Your task to perform on an android device: Clear the cart on target.com. Add "usb-c" to the cart on target.com Image 0: 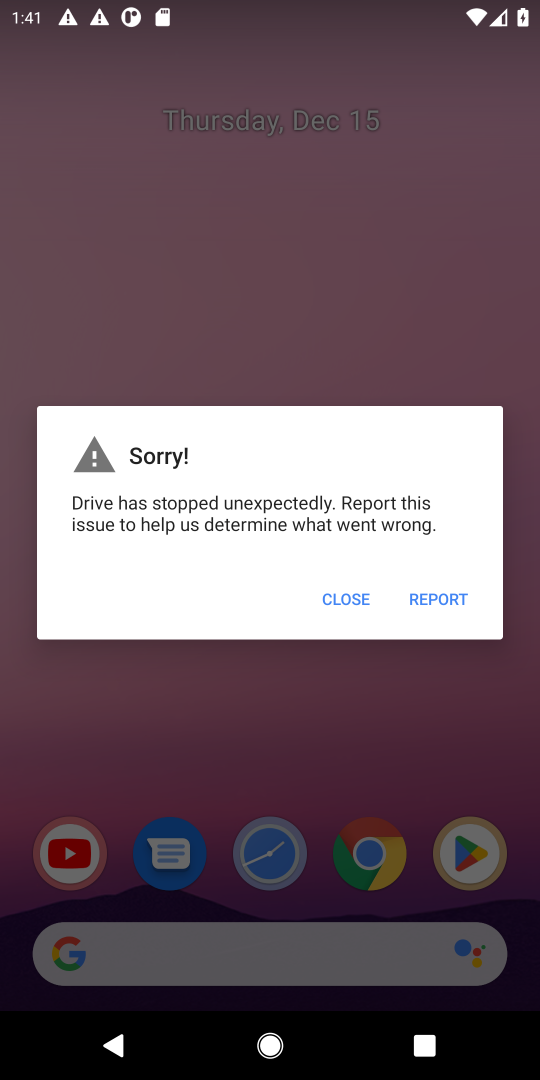
Step 0: press home button
Your task to perform on an android device: Clear the cart on target.com. Add "usb-c" to the cart on target.com Image 1: 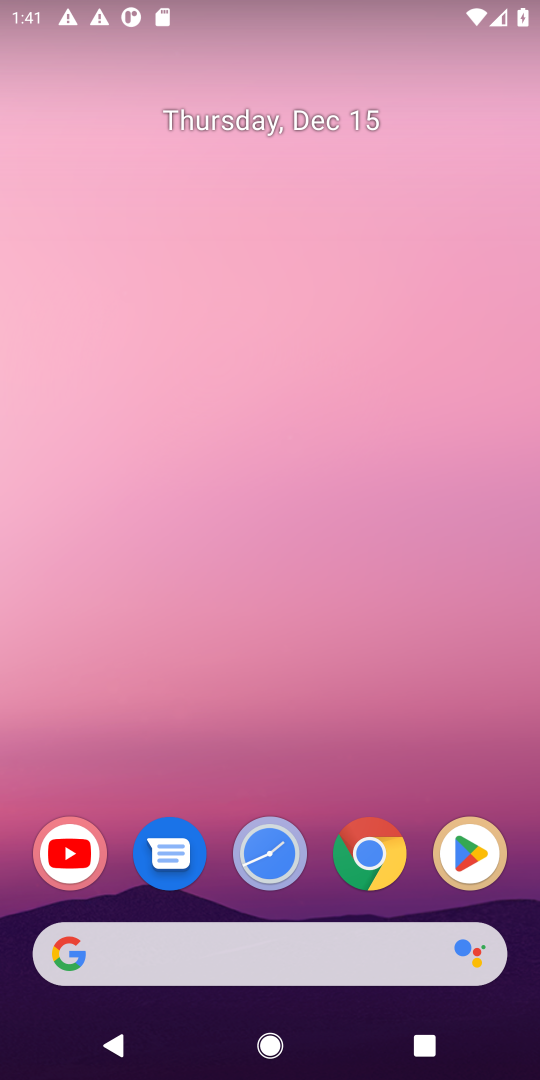
Step 1: drag from (229, 939) to (206, 186)
Your task to perform on an android device: Clear the cart on target.com. Add "usb-c" to the cart on target.com Image 2: 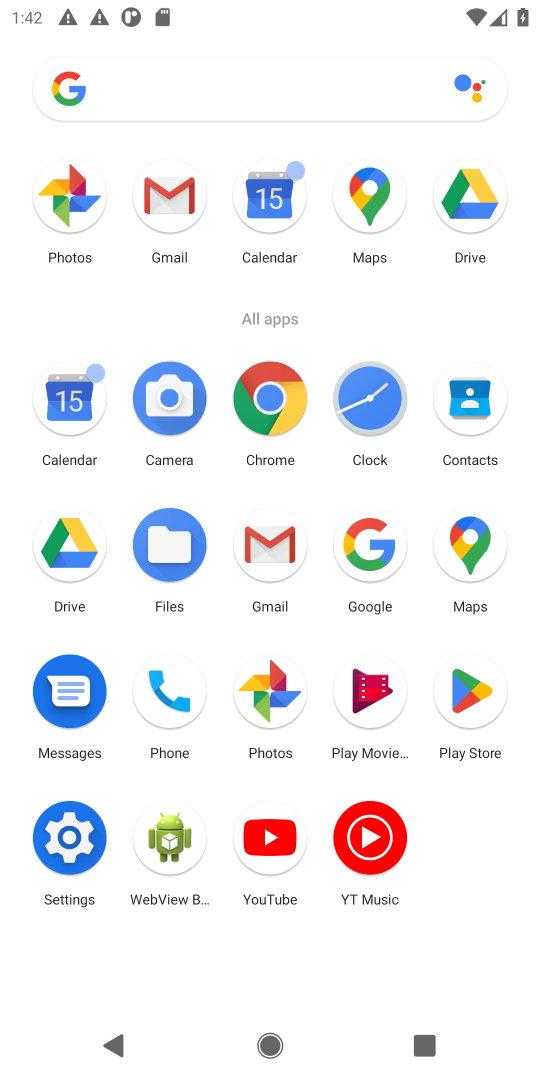
Step 2: click (362, 534)
Your task to perform on an android device: Clear the cart on target.com. Add "usb-c" to the cart on target.com Image 3: 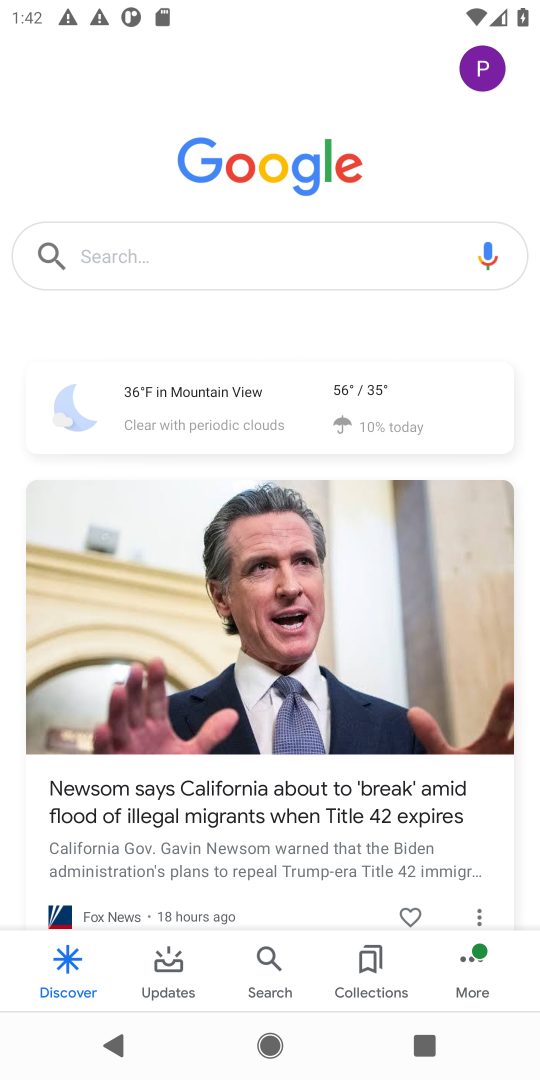
Step 3: click (105, 263)
Your task to perform on an android device: Clear the cart on target.com. Add "usb-c" to the cart on target.com Image 4: 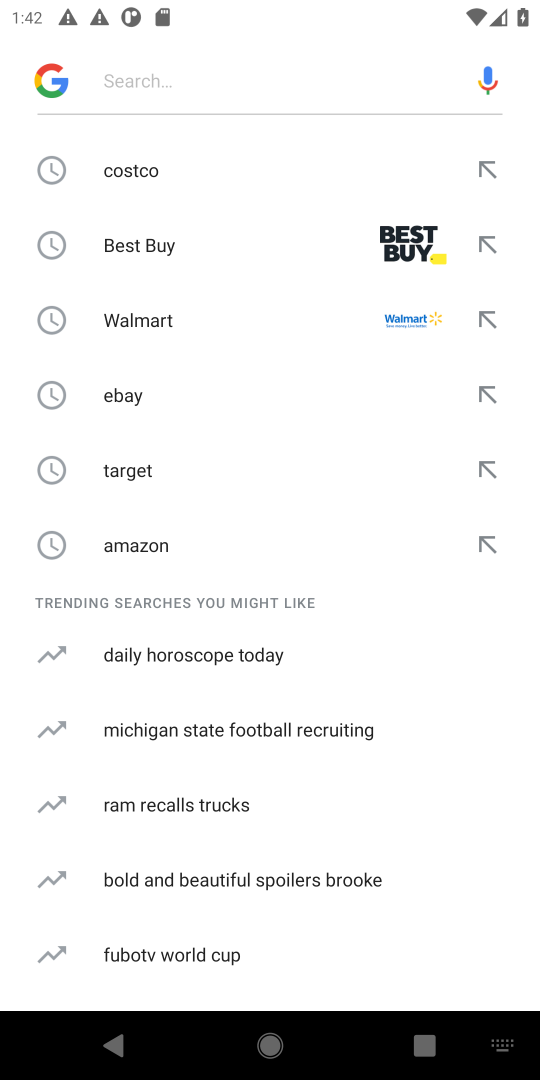
Step 4: click (117, 468)
Your task to perform on an android device: Clear the cart on target.com. Add "usb-c" to the cart on target.com Image 5: 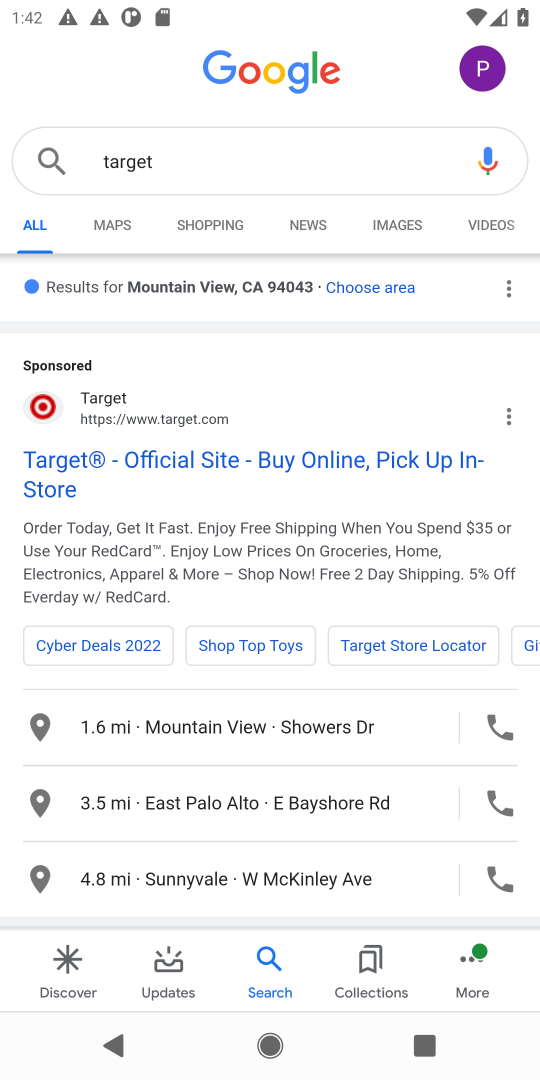
Step 5: click (114, 460)
Your task to perform on an android device: Clear the cart on target.com. Add "usb-c" to the cart on target.com Image 6: 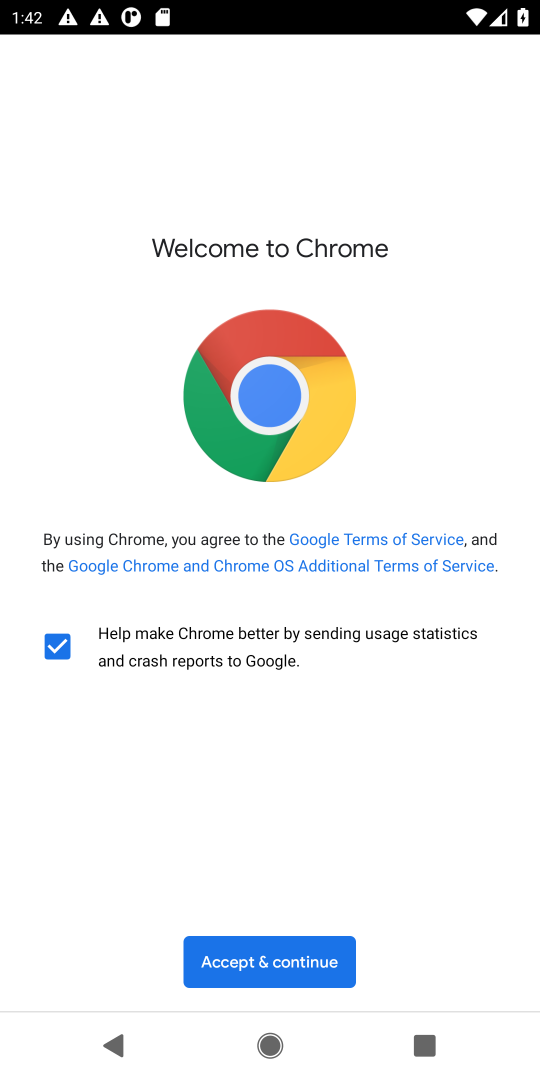
Step 6: click (274, 970)
Your task to perform on an android device: Clear the cart on target.com. Add "usb-c" to the cart on target.com Image 7: 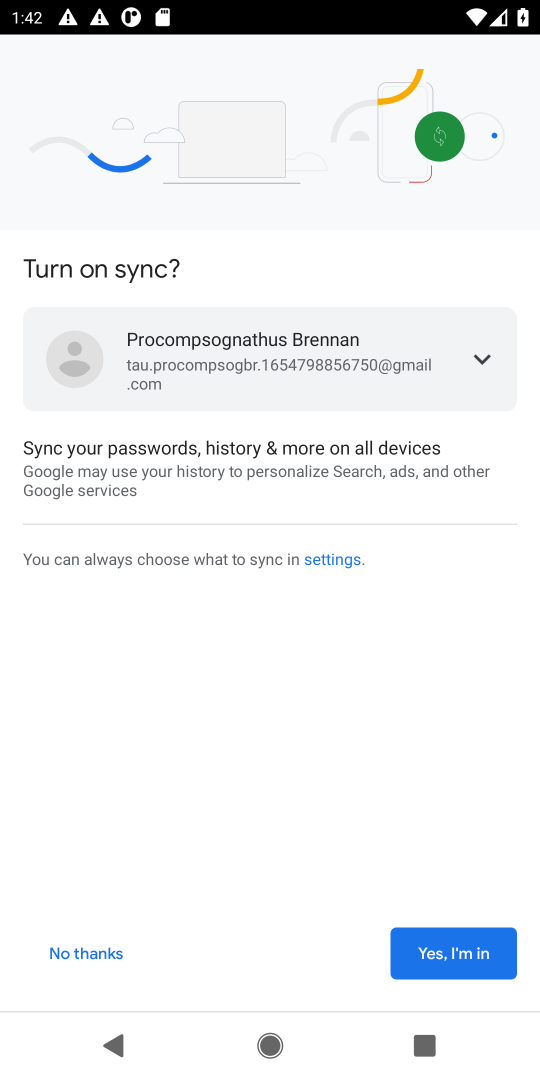
Step 7: click (431, 956)
Your task to perform on an android device: Clear the cart on target.com. Add "usb-c" to the cart on target.com Image 8: 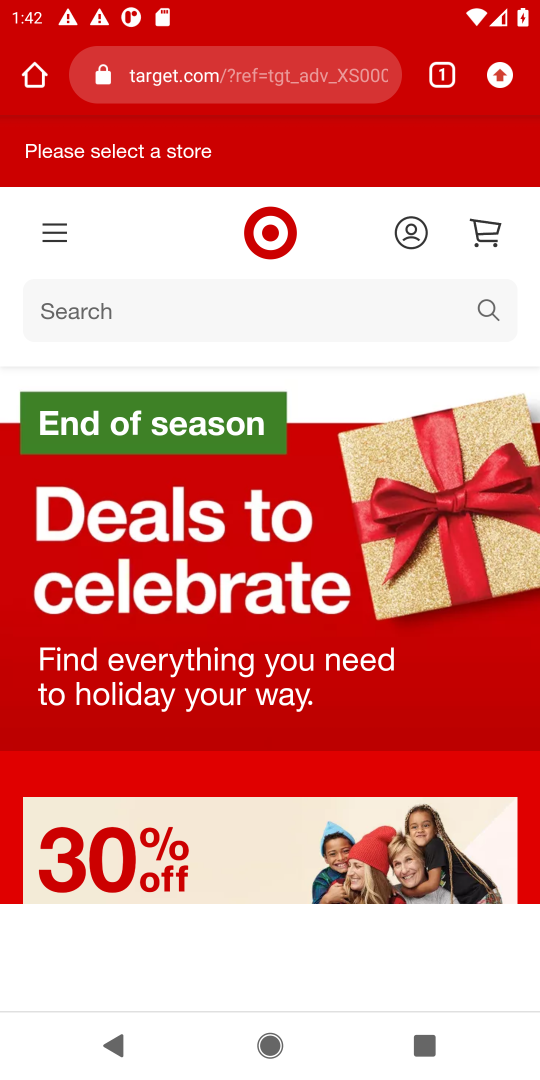
Step 8: click (85, 312)
Your task to perform on an android device: Clear the cart on target.com. Add "usb-c" to the cart on target.com Image 9: 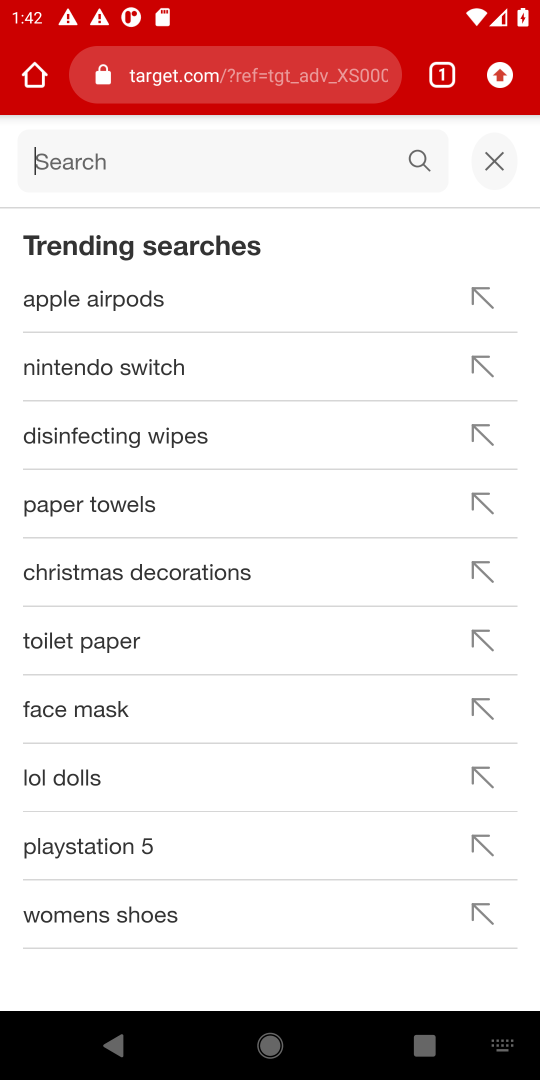
Step 9: type "usb-c"
Your task to perform on an android device: Clear the cart on target.com. Add "usb-c" to the cart on target.com Image 10: 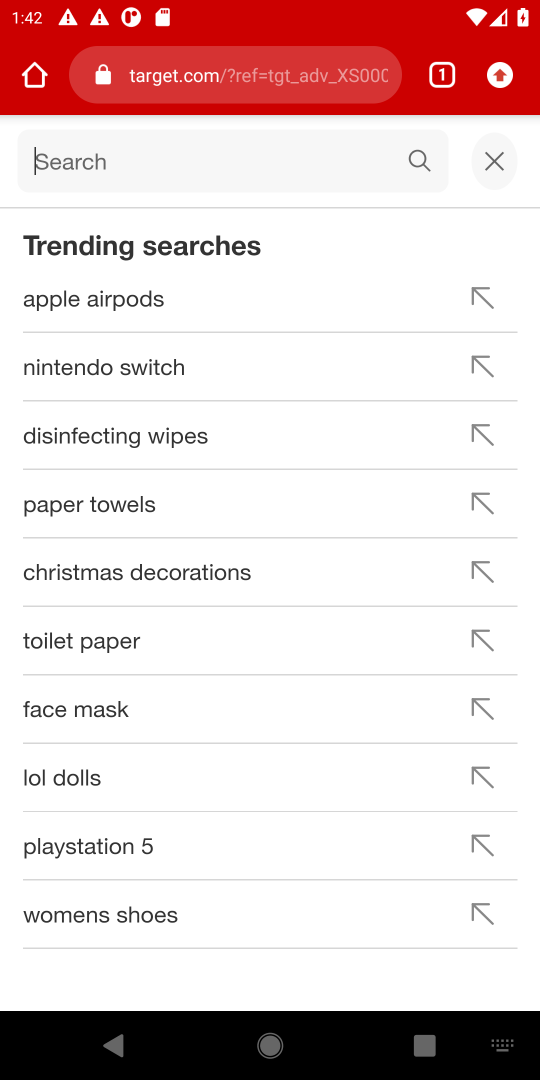
Step 10: click (414, 153)
Your task to perform on an android device: Clear the cart on target.com. Add "usb-c" to the cart on target.com Image 11: 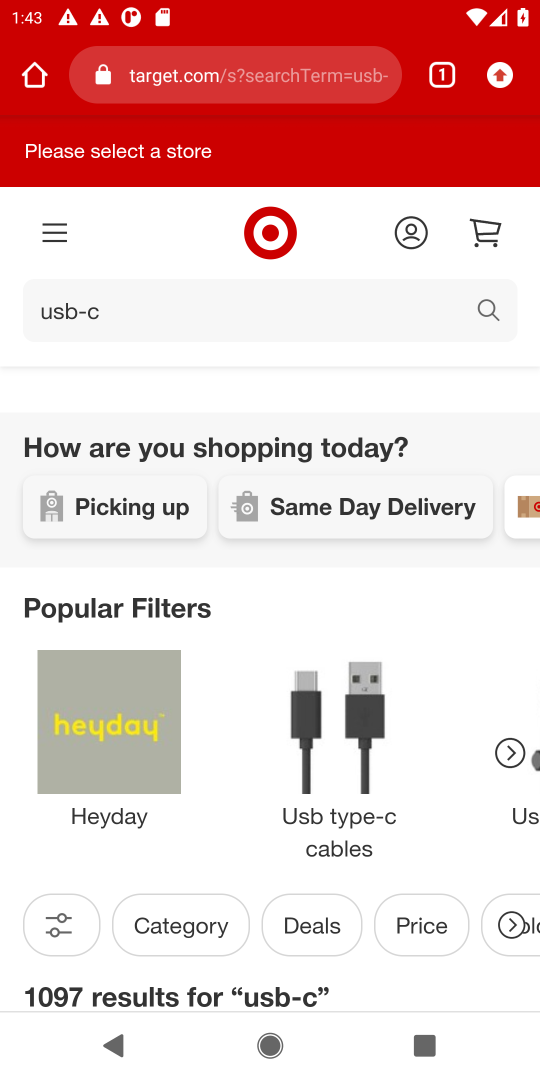
Step 11: drag from (346, 996) to (309, 350)
Your task to perform on an android device: Clear the cart on target.com. Add "usb-c" to the cart on target.com Image 12: 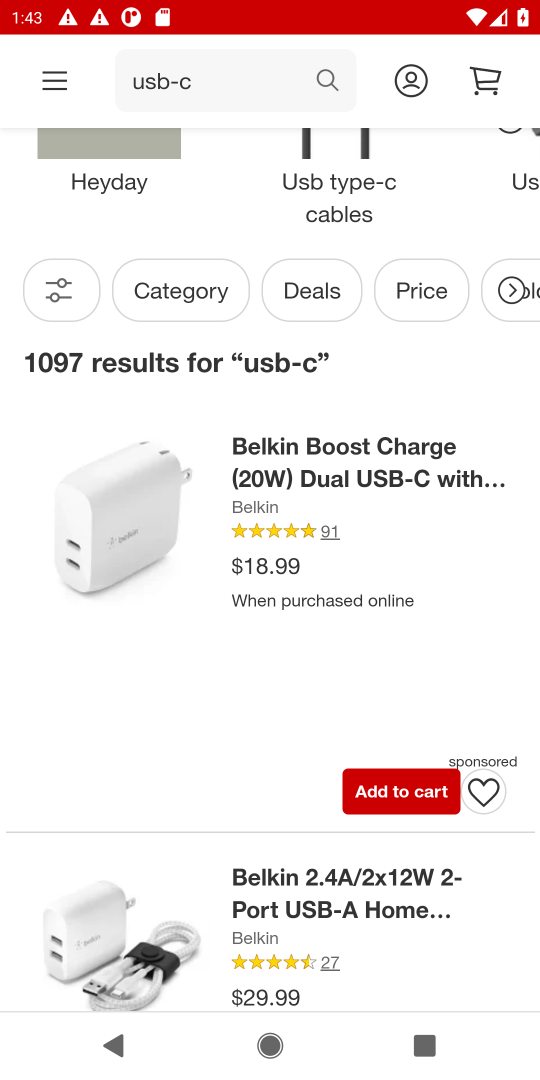
Step 12: click (412, 787)
Your task to perform on an android device: Clear the cart on target.com. Add "usb-c" to the cart on target.com Image 13: 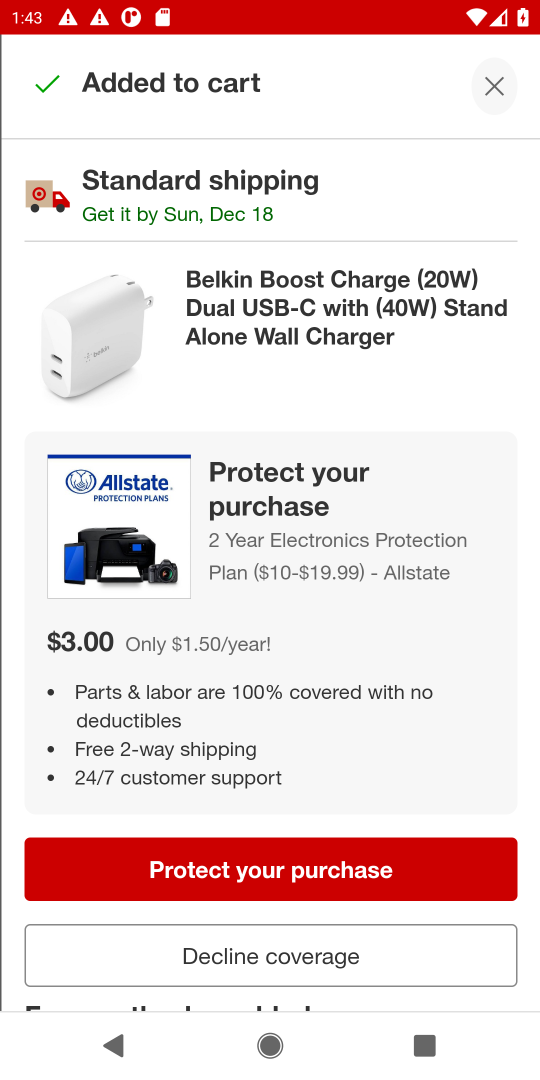
Step 13: drag from (296, 824) to (300, 285)
Your task to perform on an android device: Clear the cart on target.com. Add "usb-c" to the cart on target.com Image 14: 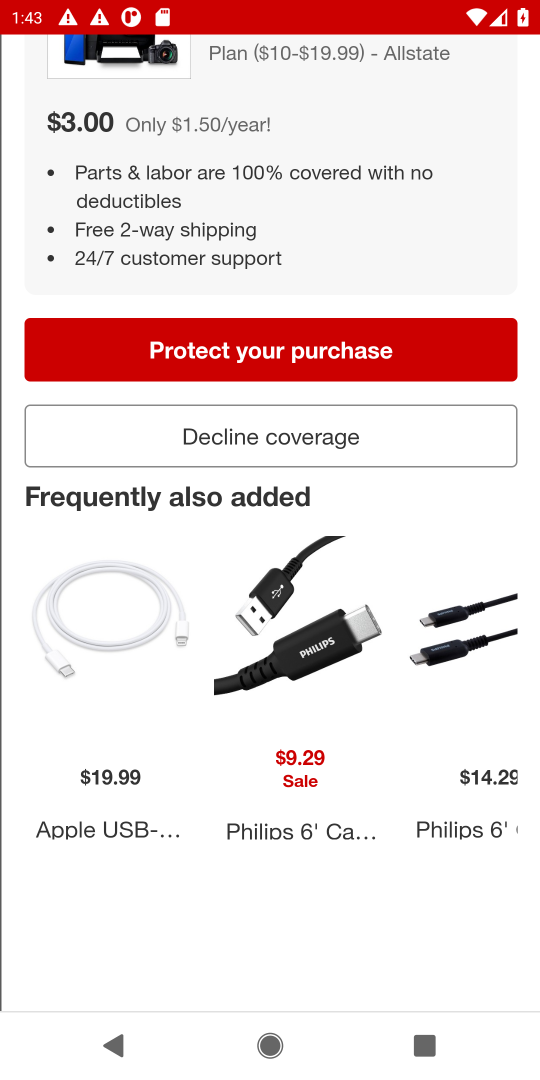
Step 14: drag from (446, 214) to (404, 706)
Your task to perform on an android device: Clear the cart on target.com. Add "usb-c" to the cart on target.com Image 15: 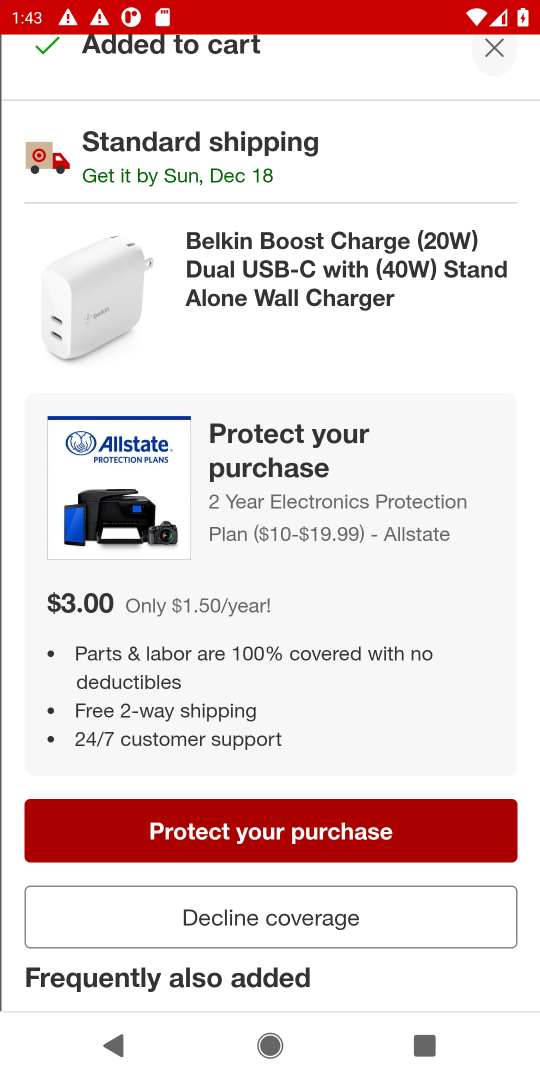
Step 15: click (505, 43)
Your task to perform on an android device: Clear the cart on target.com. Add "usb-c" to the cart on target.com Image 16: 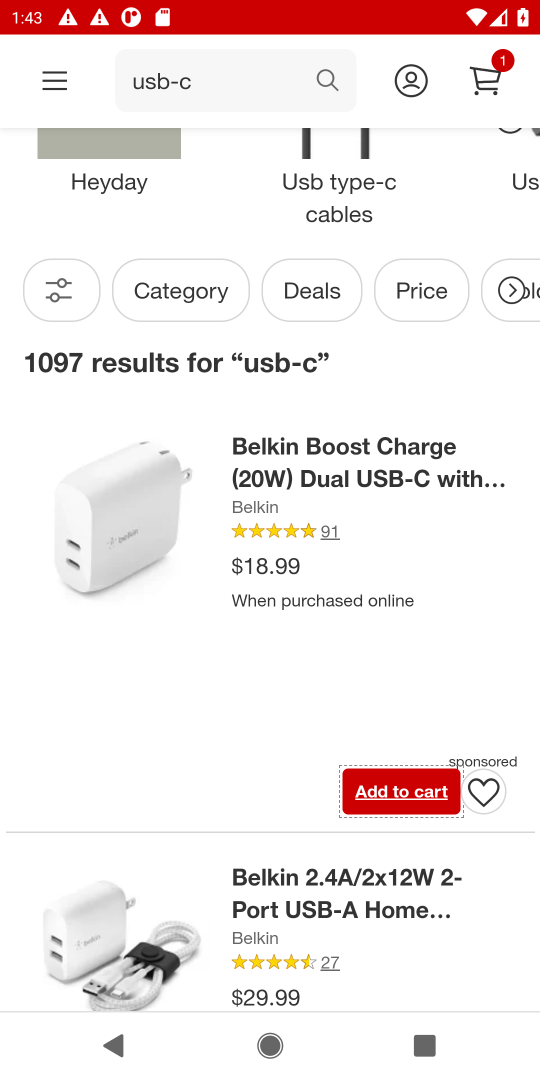
Step 16: click (476, 75)
Your task to perform on an android device: Clear the cart on target.com. Add "usb-c" to the cart on target.com Image 17: 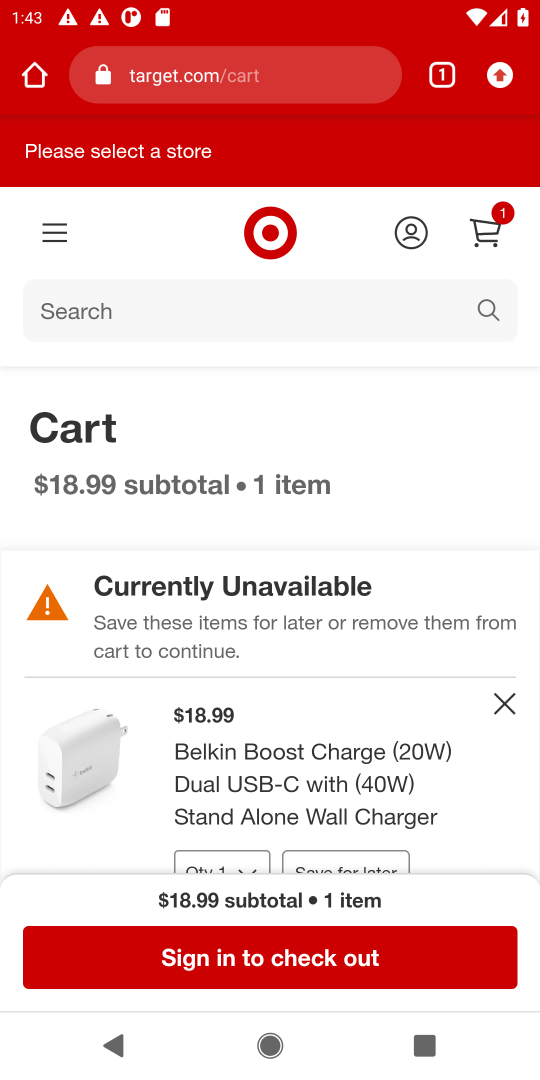
Step 17: task complete